Your task to perform on an android device: turn off data saver in the chrome app Image 0: 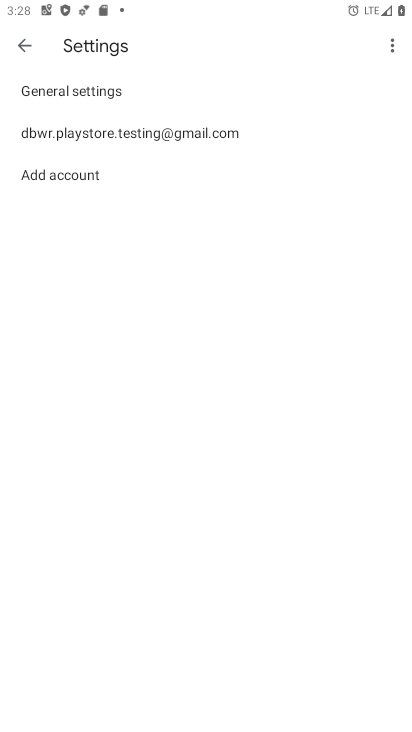
Step 0: press home button
Your task to perform on an android device: turn off data saver in the chrome app Image 1: 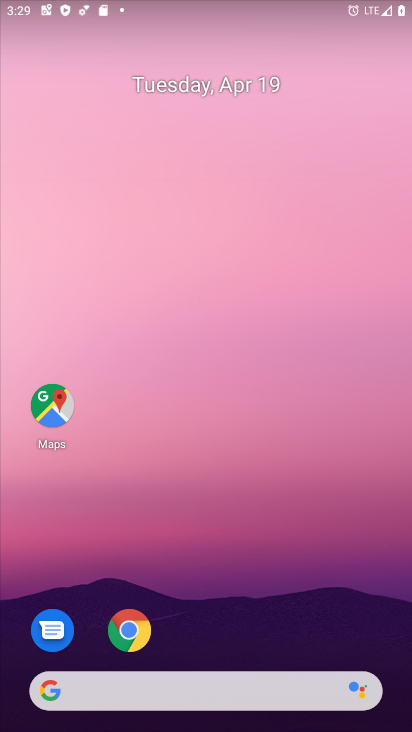
Step 1: click (131, 629)
Your task to perform on an android device: turn off data saver in the chrome app Image 2: 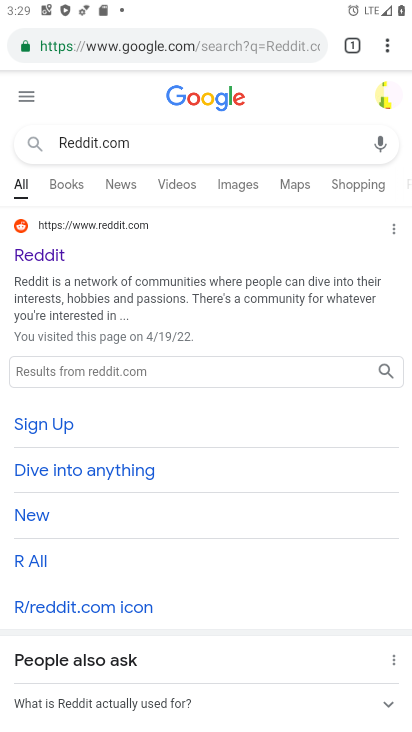
Step 2: click (388, 45)
Your task to perform on an android device: turn off data saver in the chrome app Image 3: 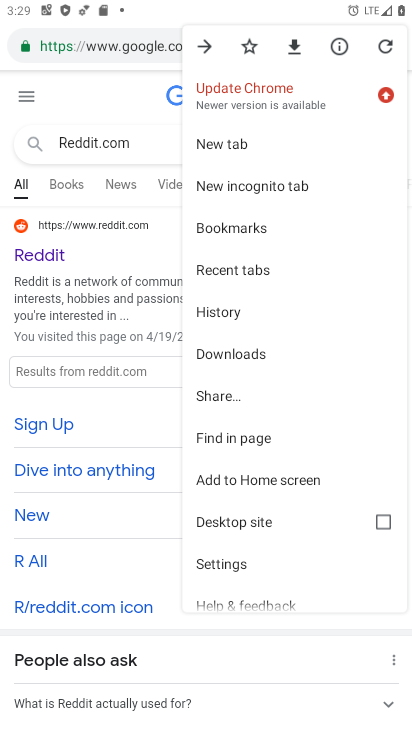
Step 3: click (209, 559)
Your task to perform on an android device: turn off data saver in the chrome app Image 4: 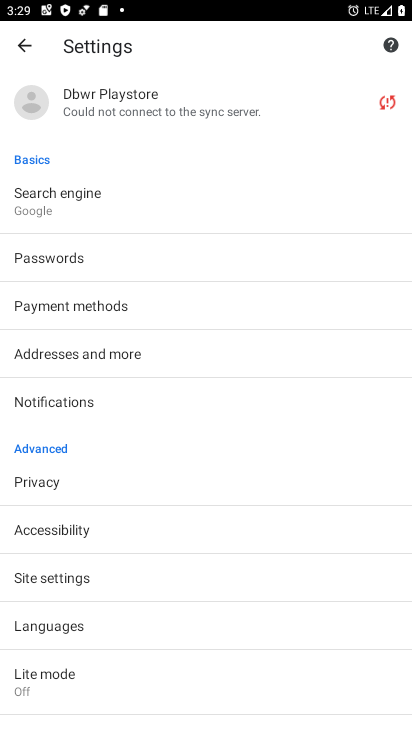
Step 4: click (67, 668)
Your task to perform on an android device: turn off data saver in the chrome app Image 5: 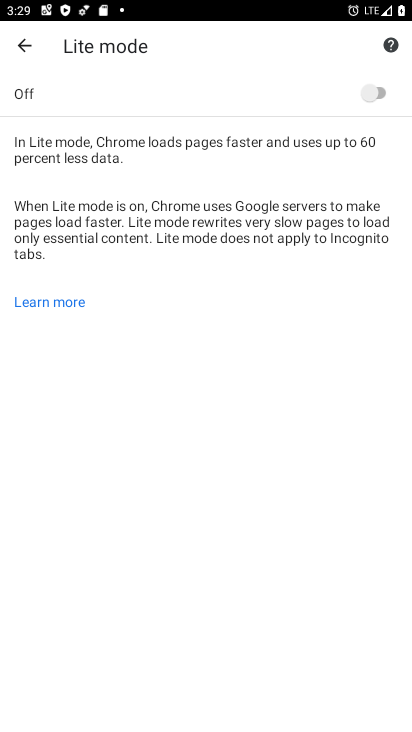
Step 5: task complete